Your task to perform on an android device: Open Android settings Image 0: 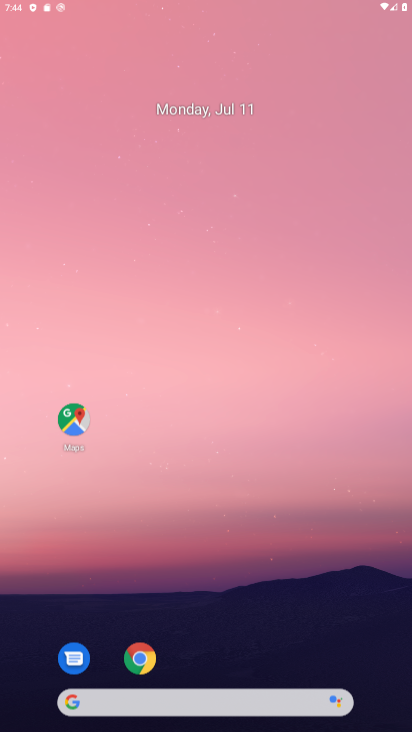
Step 0: press home button
Your task to perform on an android device: Open Android settings Image 1: 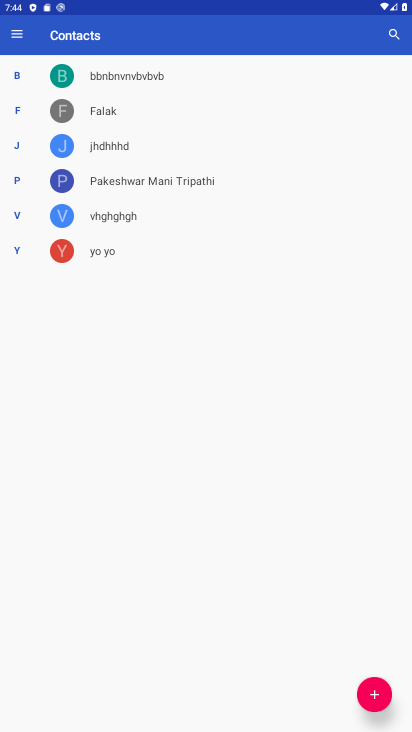
Step 1: press home button
Your task to perform on an android device: Open Android settings Image 2: 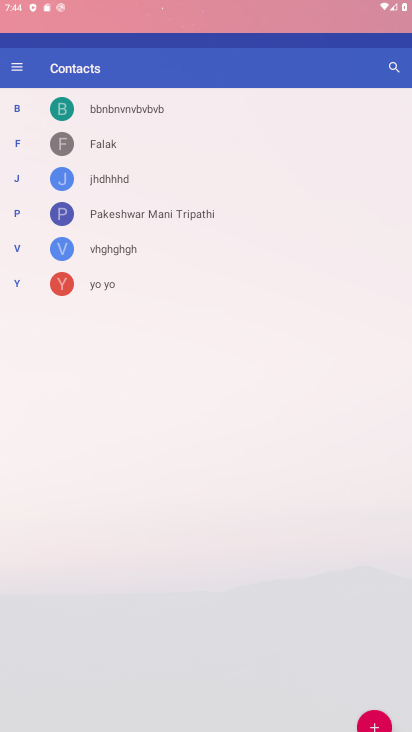
Step 2: click (258, 96)
Your task to perform on an android device: Open Android settings Image 3: 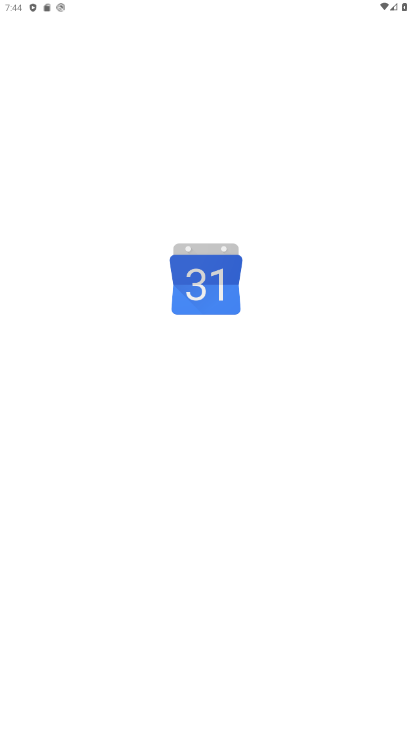
Step 3: drag from (233, 583) to (346, 256)
Your task to perform on an android device: Open Android settings Image 4: 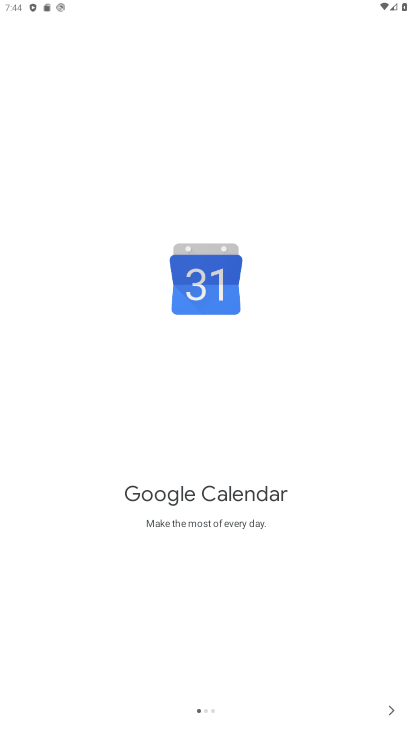
Step 4: drag from (296, 632) to (294, 195)
Your task to perform on an android device: Open Android settings Image 5: 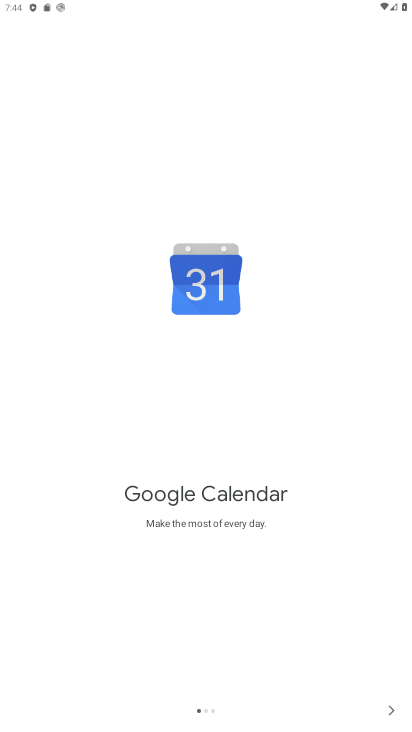
Step 5: drag from (123, 425) to (135, 344)
Your task to perform on an android device: Open Android settings Image 6: 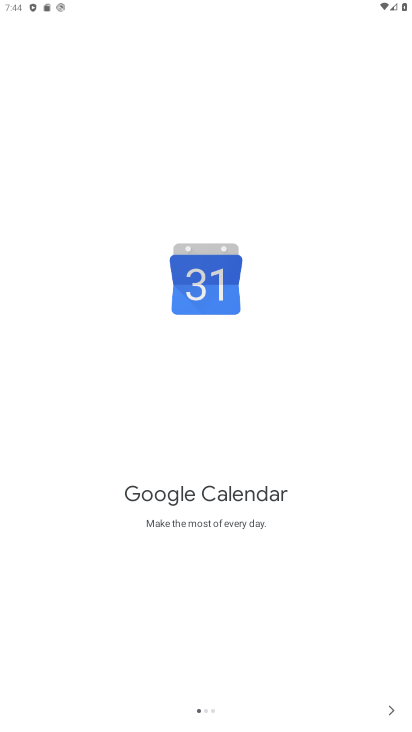
Step 6: click (399, 705)
Your task to perform on an android device: Open Android settings Image 7: 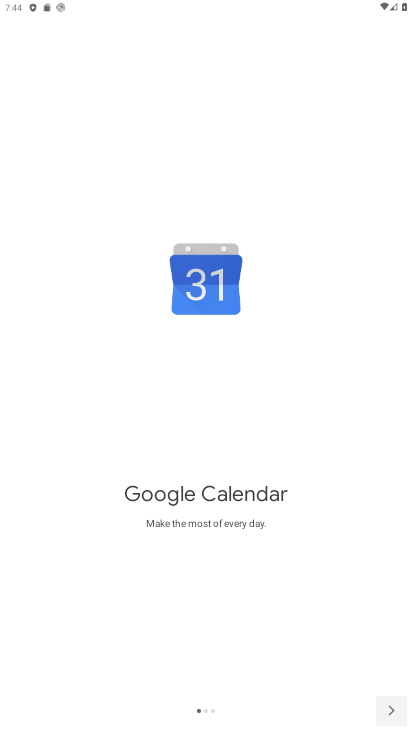
Step 7: click (382, 704)
Your task to perform on an android device: Open Android settings Image 8: 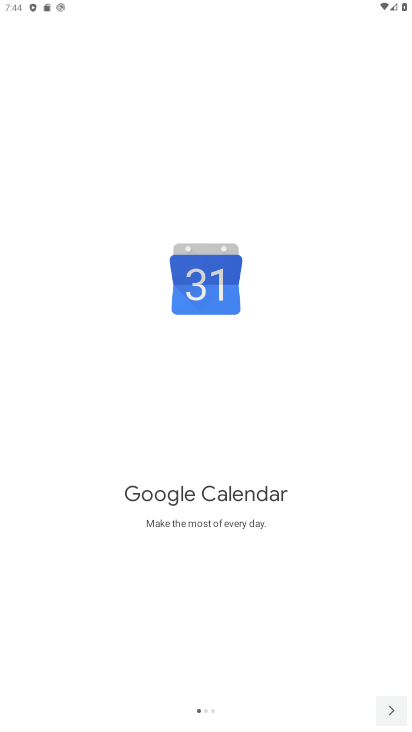
Step 8: click (382, 704)
Your task to perform on an android device: Open Android settings Image 9: 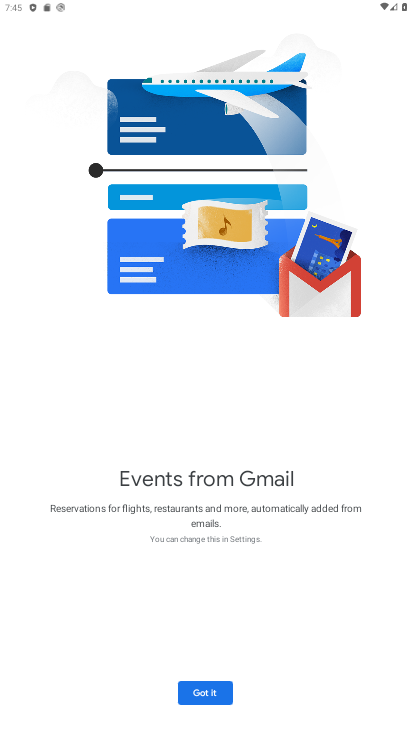
Step 9: click (384, 708)
Your task to perform on an android device: Open Android settings Image 10: 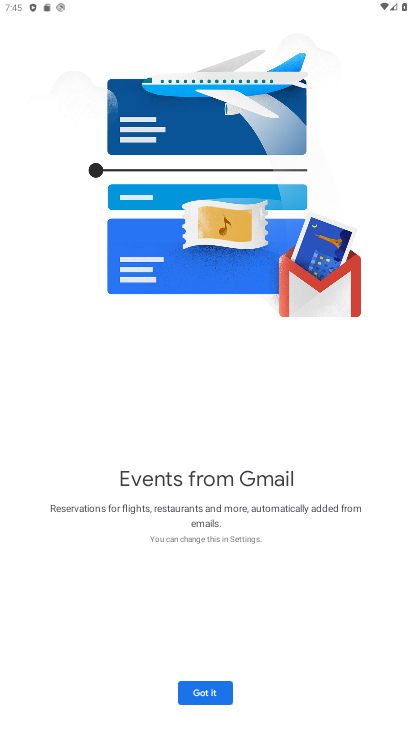
Step 10: click (196, 689)
Your task to perform on an android device: Open Android settings Image 11: 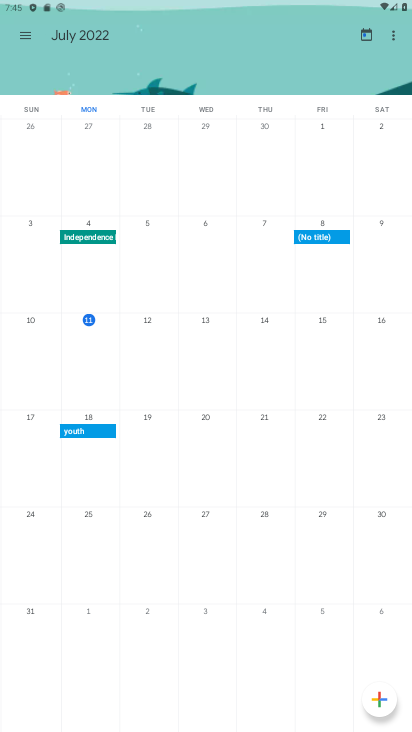
Step 11: drag from (257, 367) to (271, 190)
Your task to perform on an android device: Open Android settings Image 12: 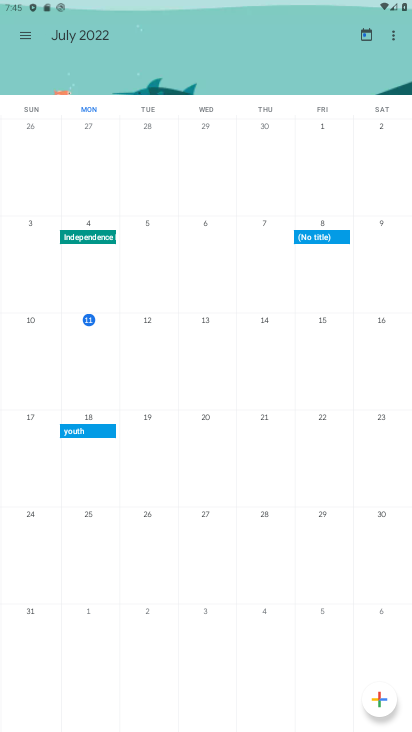
Step 12: drag from (169, 621) to (206, 339)
Your task to perform on an android device: Open Android settings Image 13: 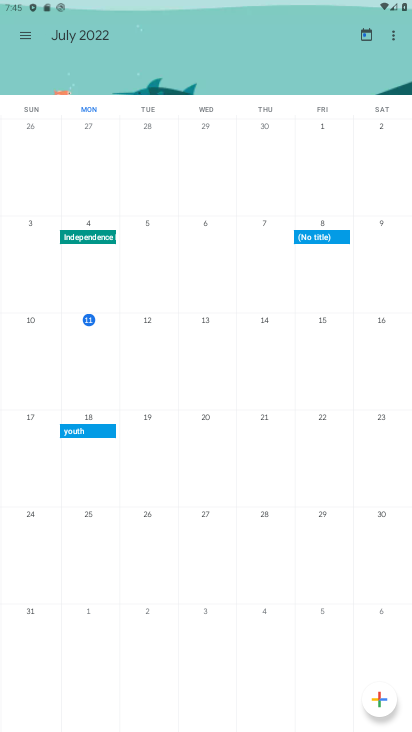
Step 13: press home button
Your task to perform on an android device: Open Android settings Image 14: 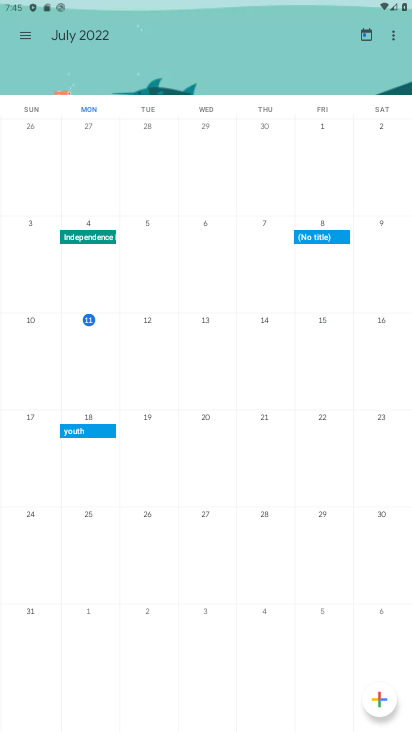
Step 14: drag from (225, 413) to (309, 27)
Your task to perform on an android device: Open Android settings Image 15: 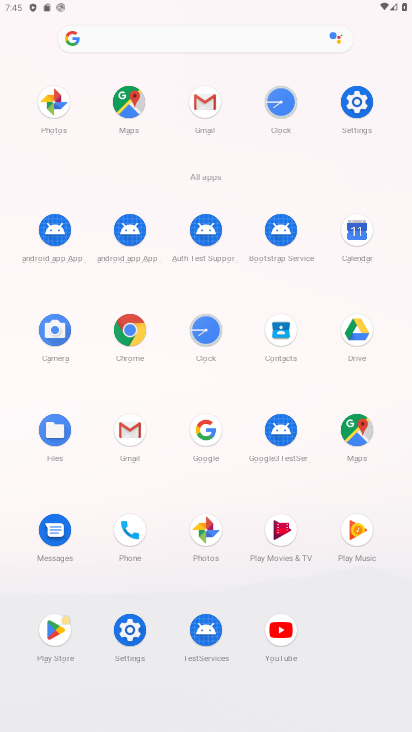
Step 15: click (351, 102)
Your task to perform on an android device: Open Android settings Image 16: 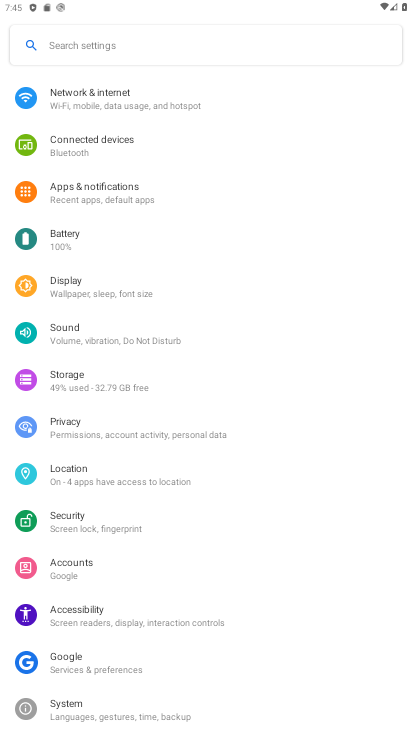
Step 16: drag from (156, 606) to (203, 16)
Your task to perform on an android device: Open Android settings Image 17: 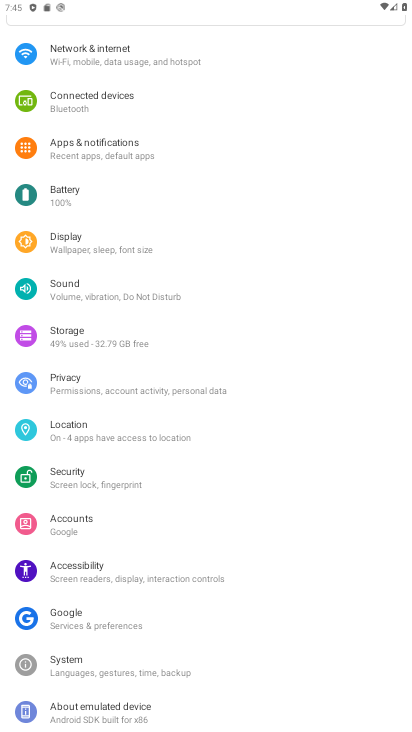
Step 17: click (109, 706)
Your task to perform on an android device: Open Android settings Image 18: 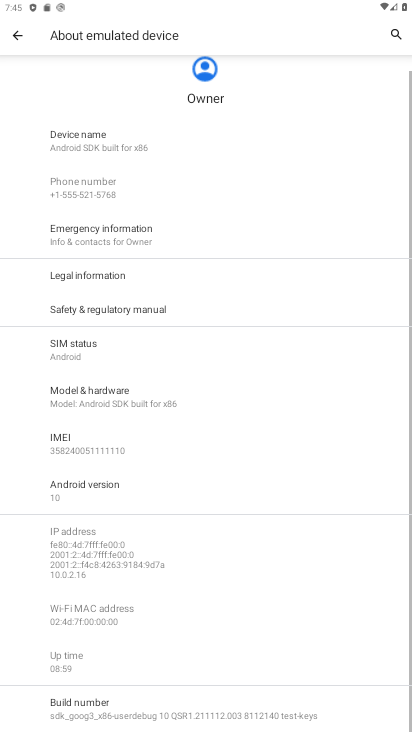
Step 18: click (165, 488)
Your task to perform on an android device: Open Android settings Image 19: 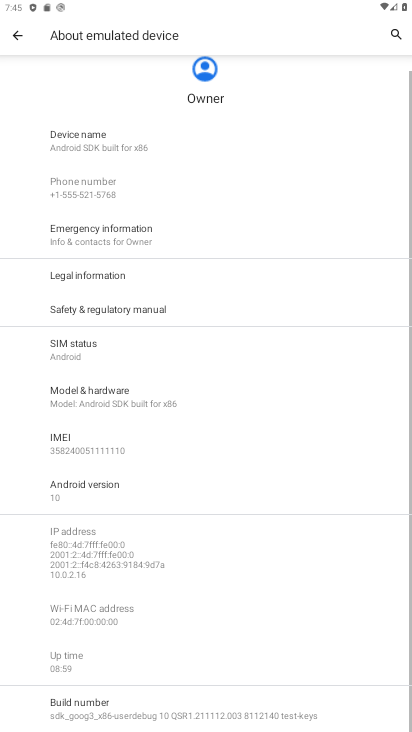
Step 19: click (165, 488)
Your task to perform on an android device: Open Android settings Image 20: 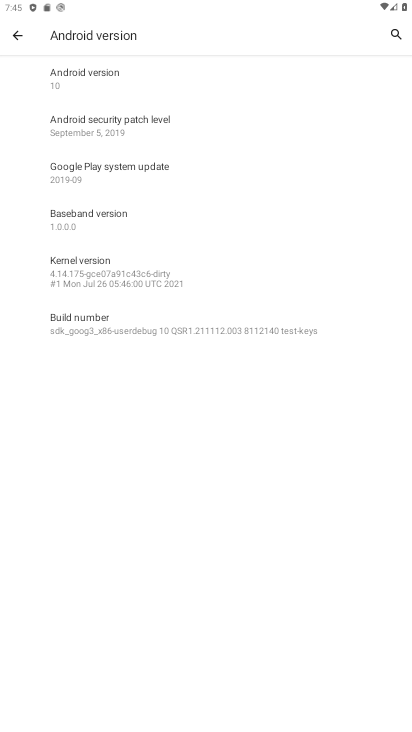
Step 20: drag from (266, 560) to (379, 208)
Your task to perform on an android device: Open Android settings Image 21: 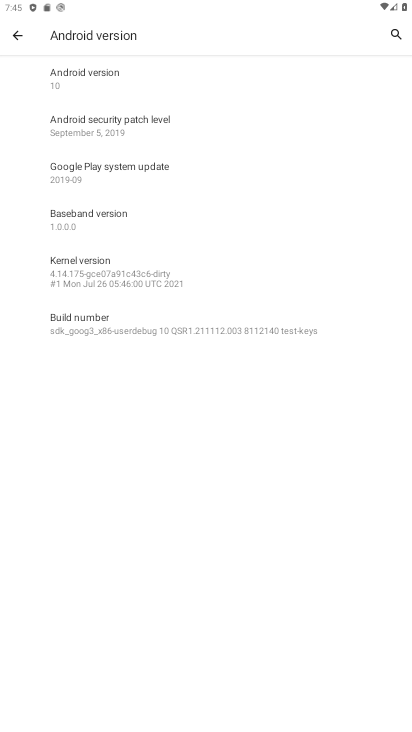
Step 21: drag from (177, 529) to (155, 123)
Your task to perform on an android device: Open Android settings Image 22: 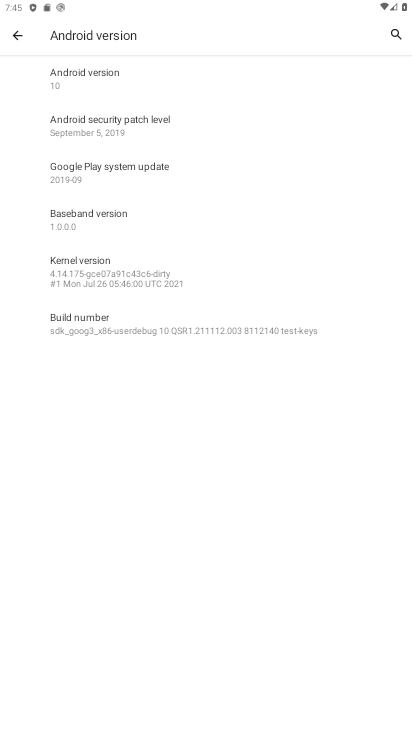
Step 22: drag from (144, 563) to (152, 292)
Your task to perform on an android device: Open Android settings Image 23: 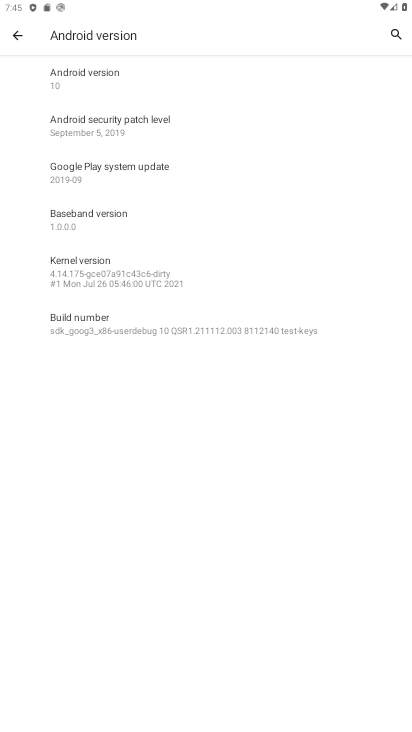
Step 23: click (112, 81)
Your task to perform on an android device: Open Android settings Image 24: 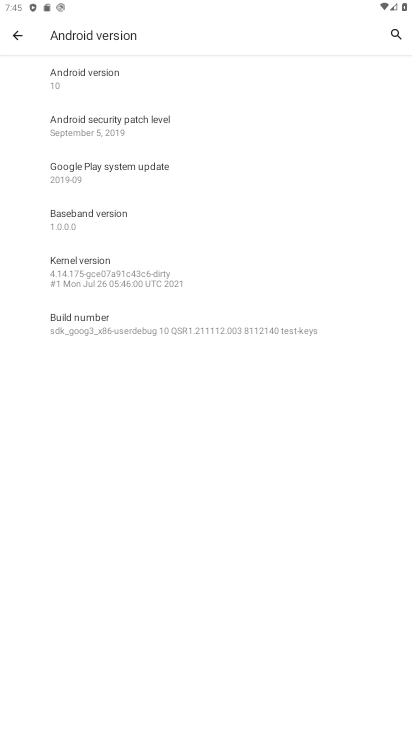
Step 24: task complete